Your task to perform on an android device: clear history in the chrome app Image 0: 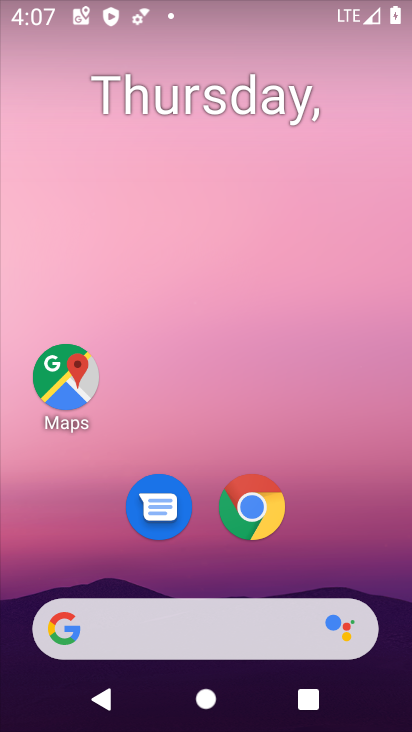
Step 0: press home button
Your task to perform on an android device: clear history in the chrome app Image 1: 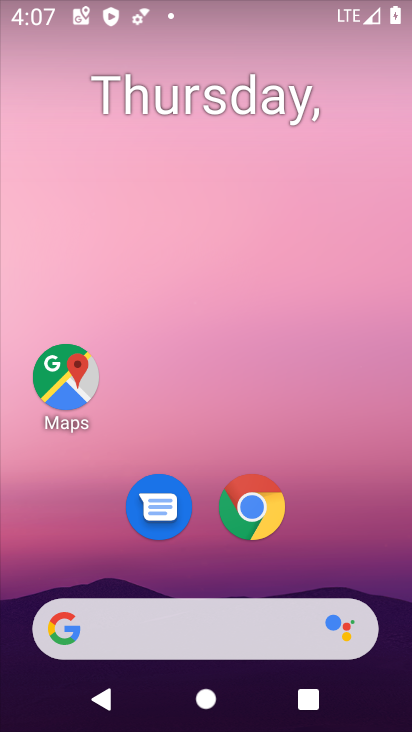
Step 1: click (256, 511)
Your task to perform on an android device: clear history in the chrome app Image 2: 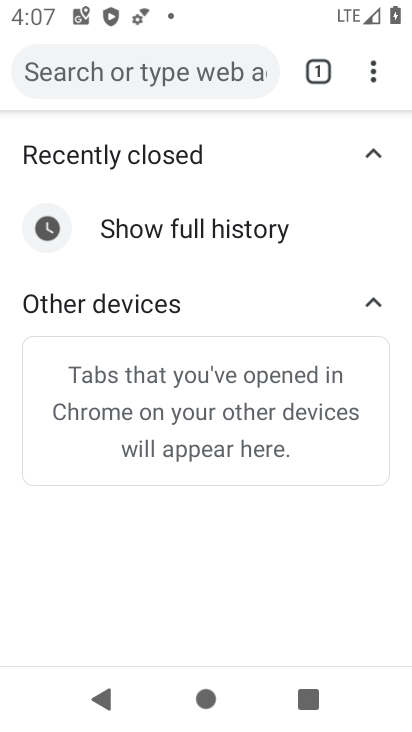
Step 2: task complete